Your task to perform on an android device: stop showing notifications on the lock screen Image 0: 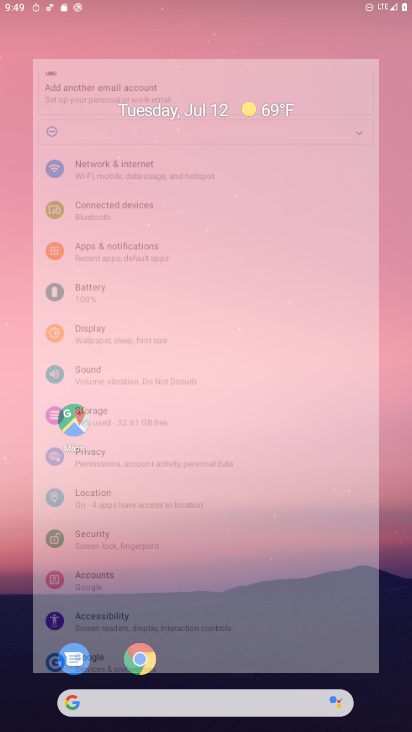
Step 0: drag from (211, 728) to (211, 298)
Your task to perform on an android device: stop showing notifications on the lock screen Image 1: 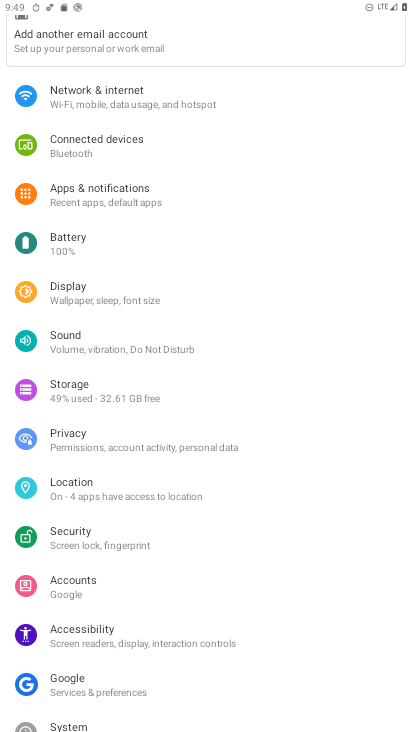
Step 1: click (113, 192)
Your task to perform on an android device: stop showing notifications on the lock screen Image 2: 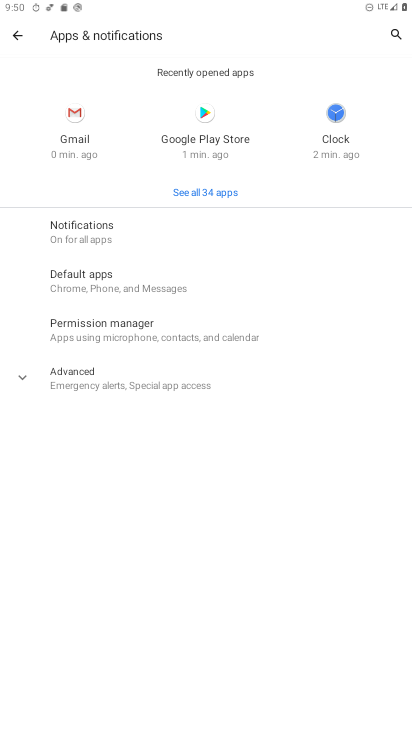
Step 2: click (90, 232)
Your task to perform on an android device: stop showing notifications on the lock screen Image 3: 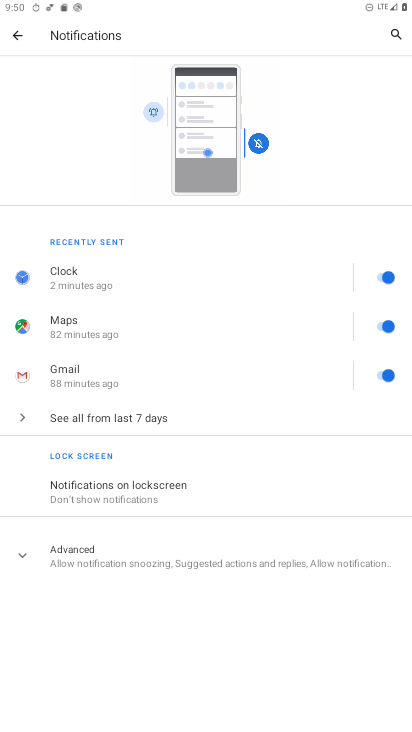
Step 3: click (90, 490)
Your task to perform on an android device: stop showing notifications on the lock screen Image 4: 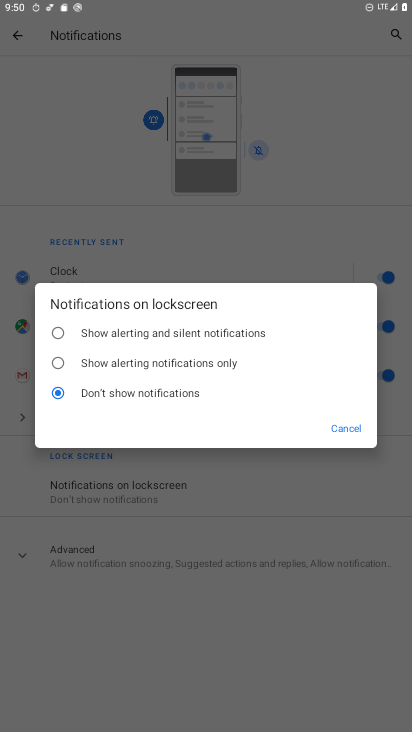
Step 4: click (342, 431)
Your task to perform on an android device: stop showing notifications on the lock screen Image 5: 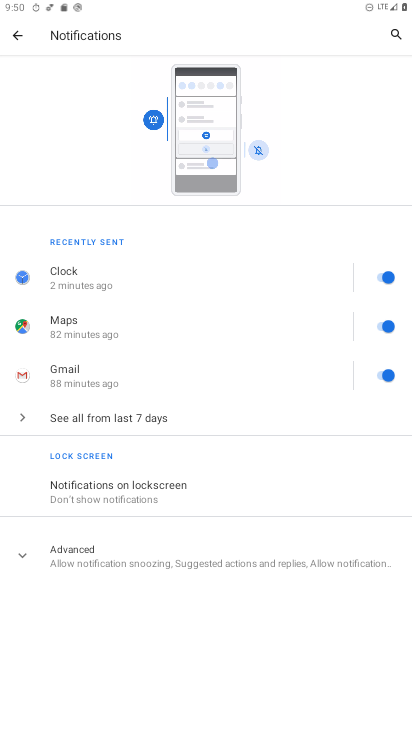
Step 5: task complete